Your task to perform on an android device: turn off notifications settings in the gmail app Image 0: 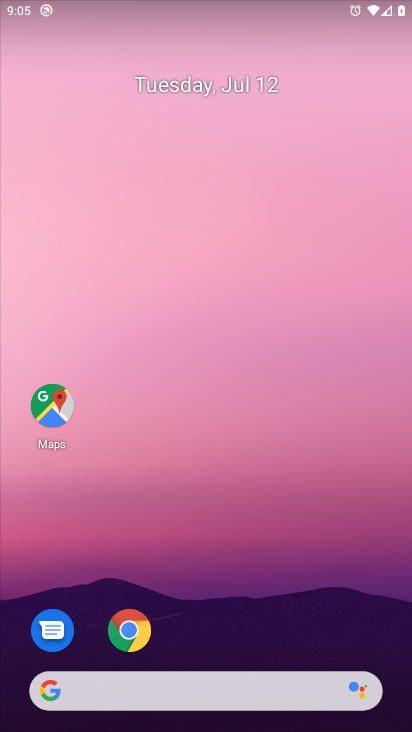
Step 0: press home button
Your task to perform on an android device: turn off notifications settings in the gmail app Image 1: 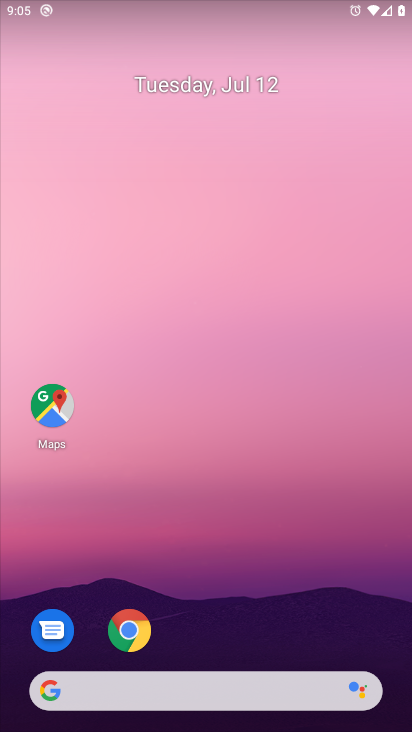
Step 1: drag from (252, 637) to (226, 181)
Your task to perform on an android device: turn off notifications settings in the gmail app Image 2: 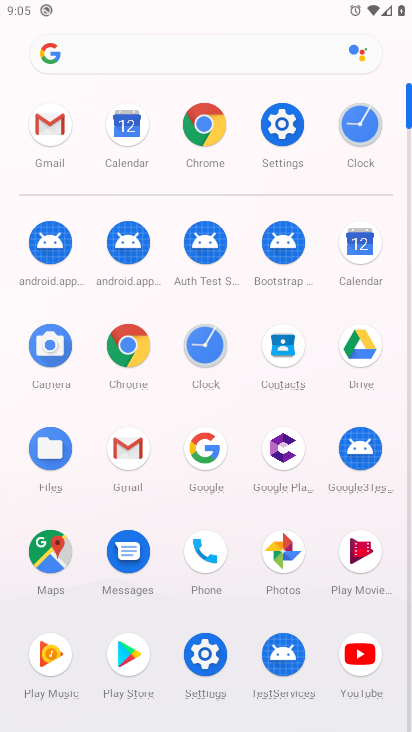
Step 2: click (48, 135)
Your task to perform on an android device: turn off notifications settings in the gmail app Image 3: 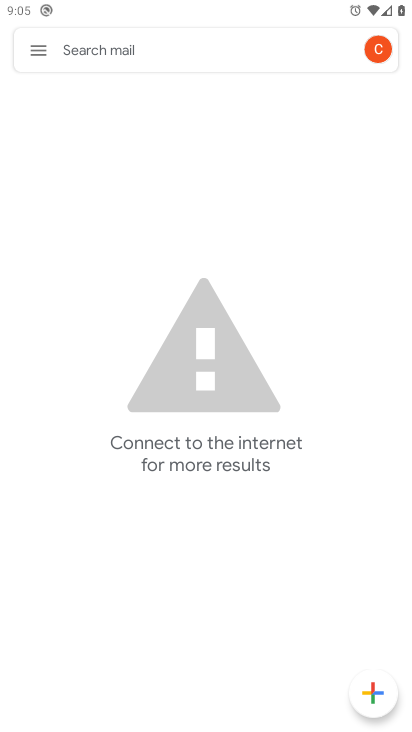
Step 3: click (26, 54)
Your task to perform on an android device: turn off notifications settings in the gmail app Image 4: 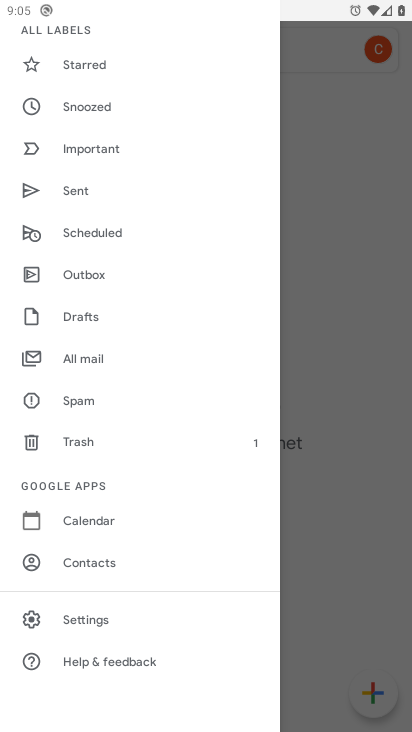
Step 4: click (100, 625)
Your task to perform on an android device: turn off notifications settings in the gmail app Image 5: 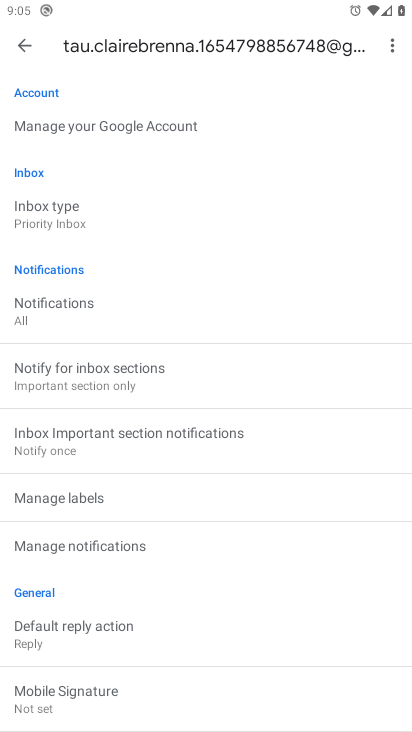
Step 5: click (69, 549)
Your task to perform on an android device: turn off notifications settings in the gmail app Image 6: 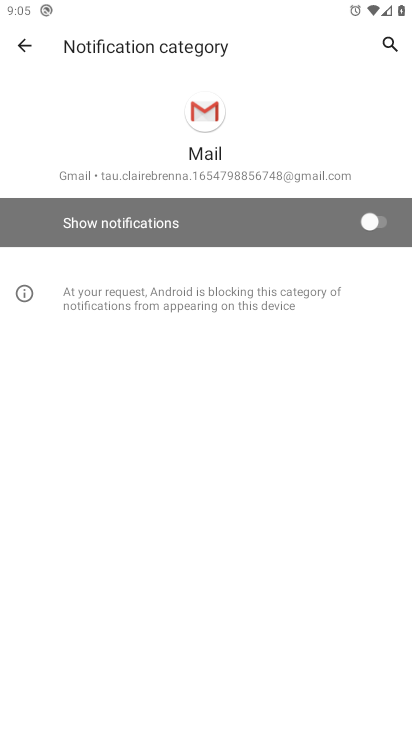
Step 6: task complete